Your task to perform on an android device: View the shopping cart on newegg. Search for "logitech g pro" on newegg, select the first entry, and add it to the cart. Image 0: 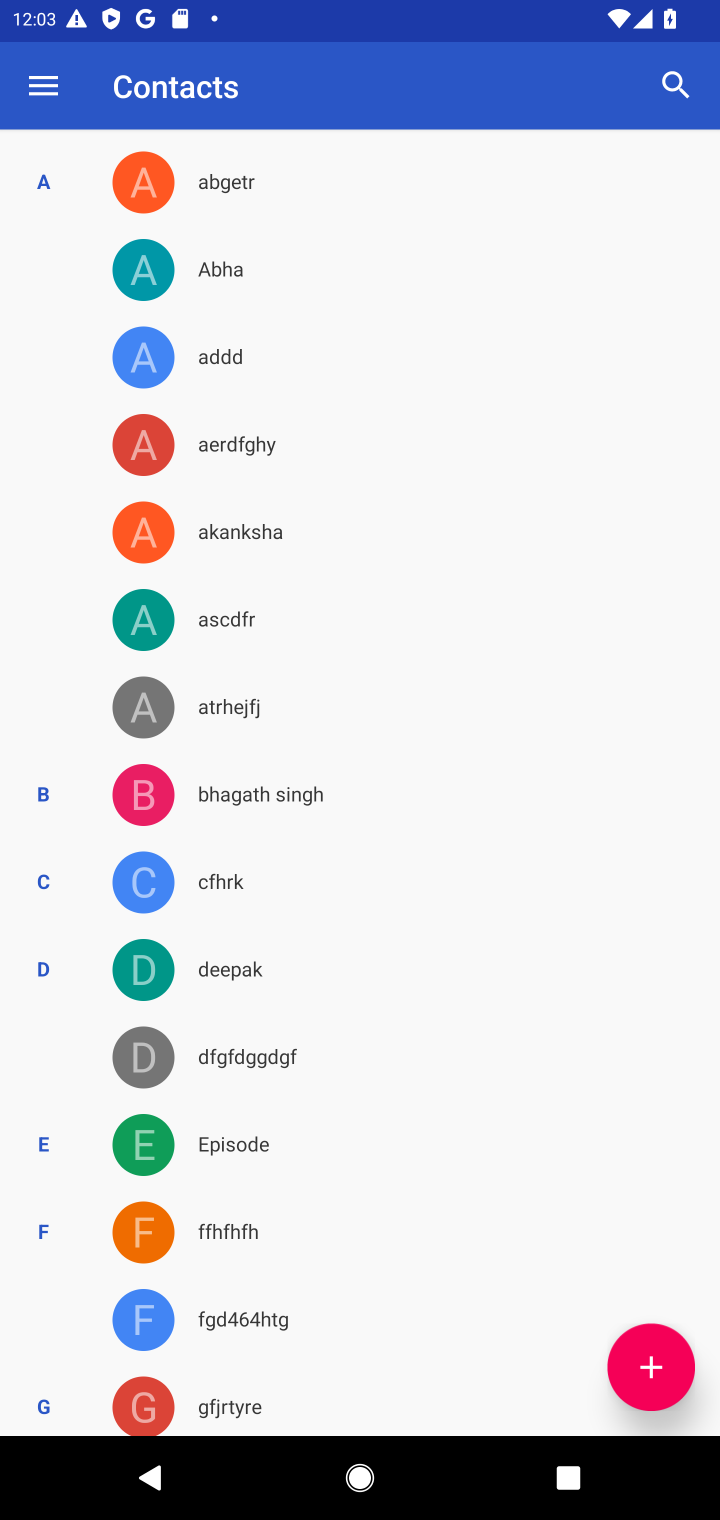
Step 0: press home button
Your task to perform on an android device: View the shopping cart on newegg. Search for "logitech g pro" on newegg, select the first entry, and add it to the cart. Image 1: 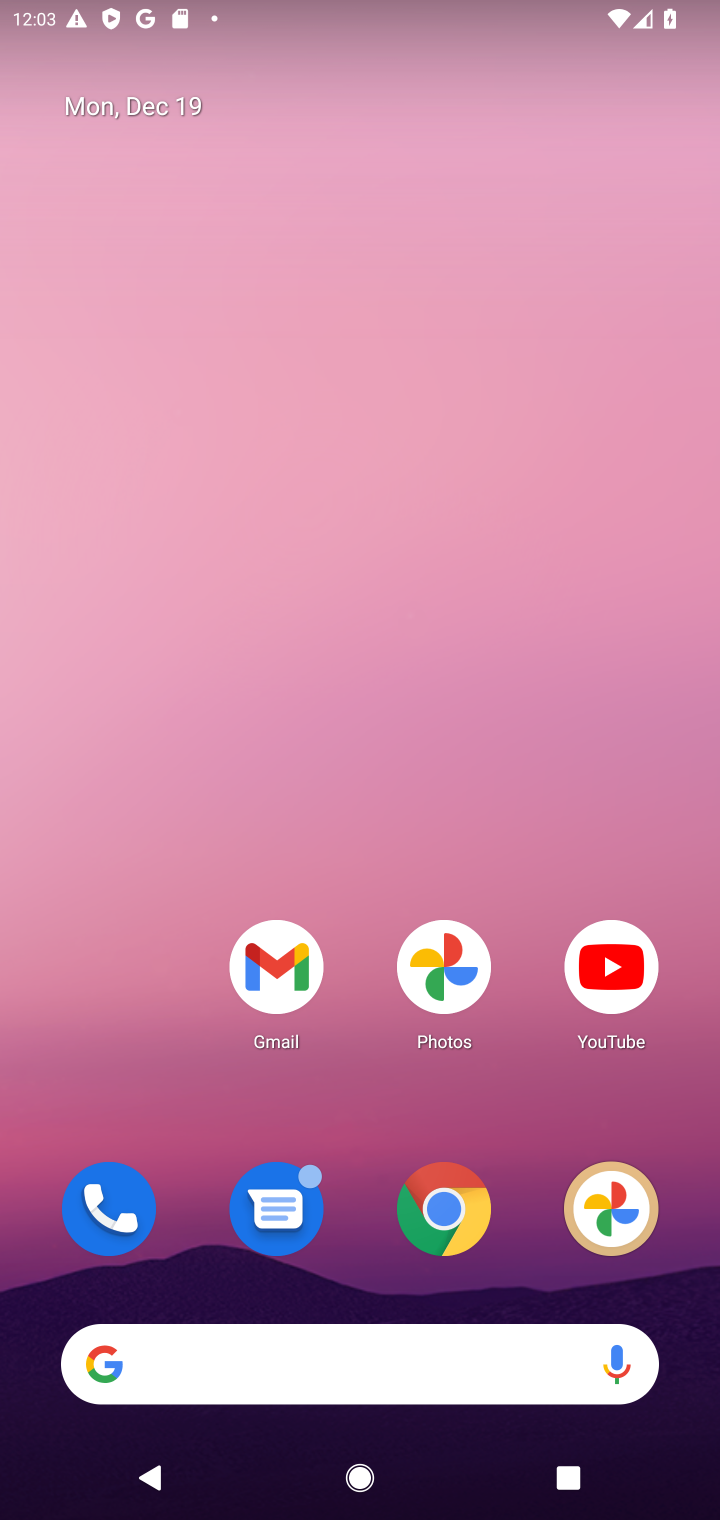
Step 1: click (432, 1206)
Your task to perform on an android device: View the shopping cart on newegg. Search for "logitech g pro" on newegg, select the first entry, and add it to the cart. Image 2: 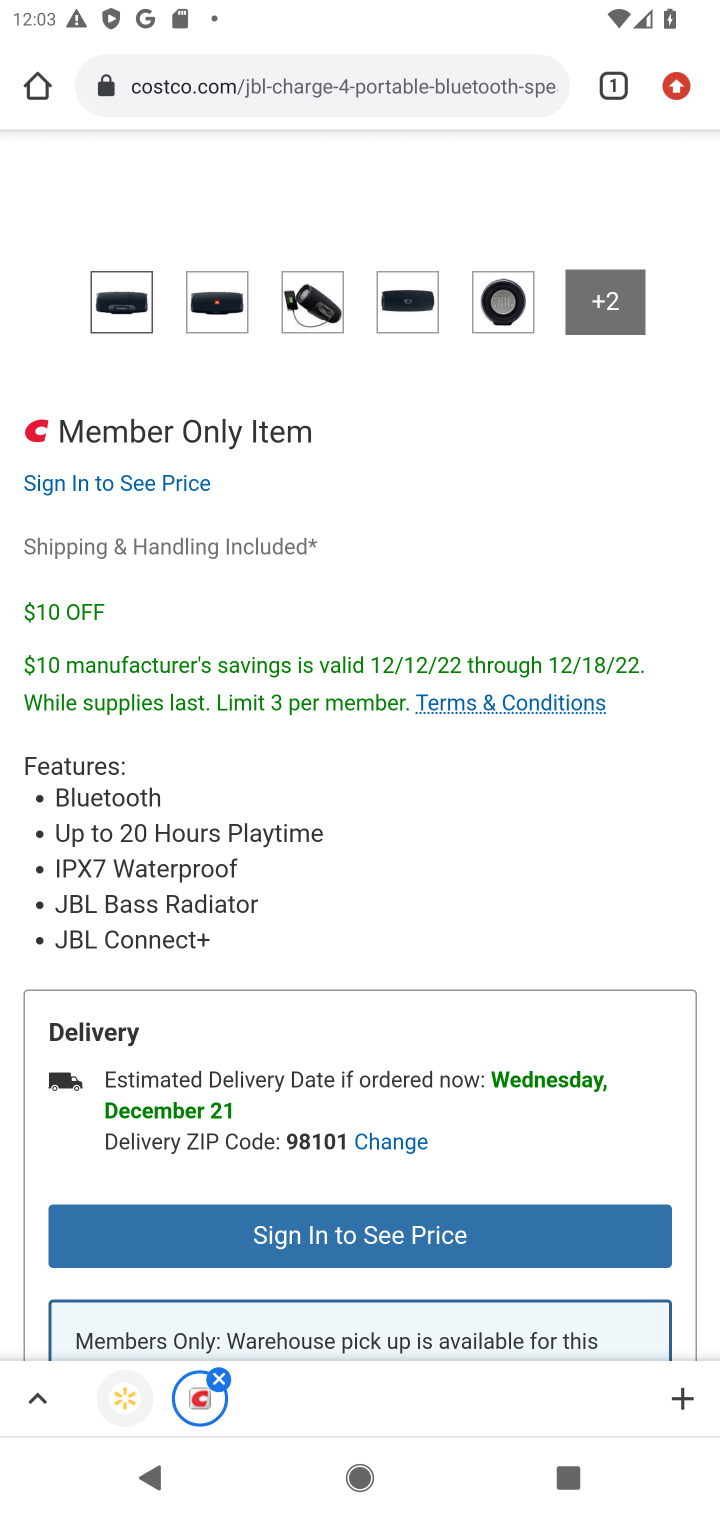
Step 2: click (332, 86)
Your task to perform on an android device: View the shopping cart on newegg. Search for "logitech g pro" on newegg, select the first entry, and add it to the cart. Image 3: 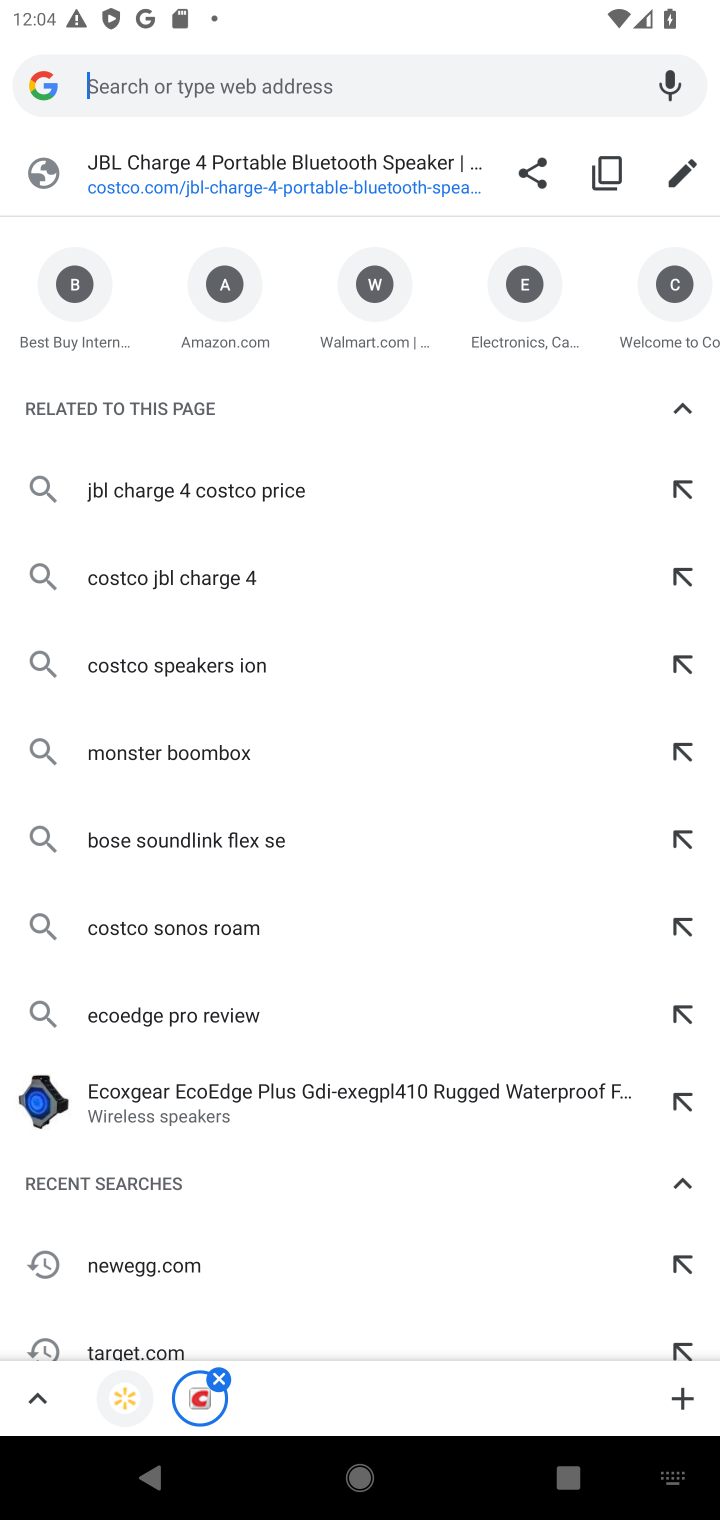
Step 3: type "NEWEGG"
Your task to perform on an android device: View the shopping cart on newegg. Search for "logitech g pro" on newegg, select the first entry, and add it to the cart. Image 4: 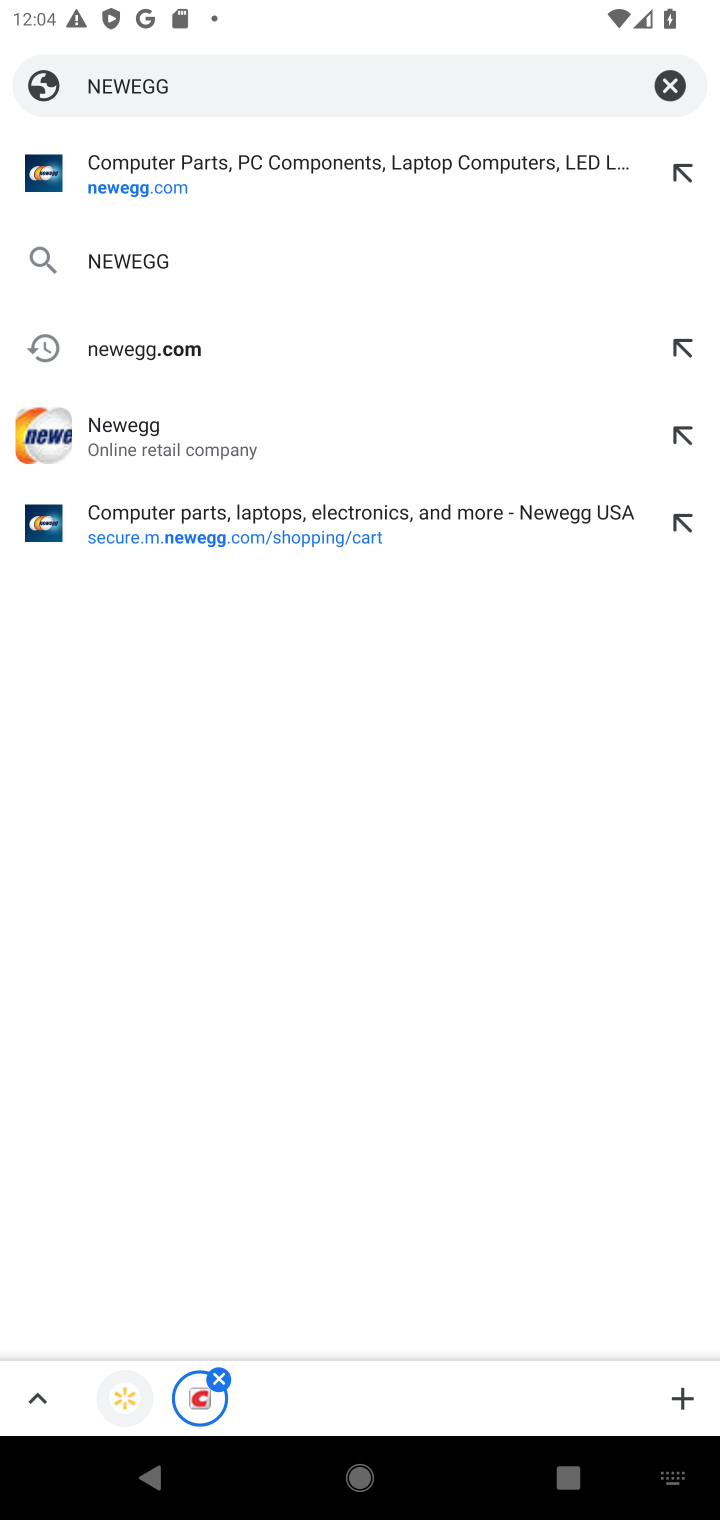
Step 4: click (420, 190)
Your task to perform on an android device: View the shopping cart on newegg. Search for "logitech g pro" on newegg, select the first entry, and add it to the cart. Image 5: 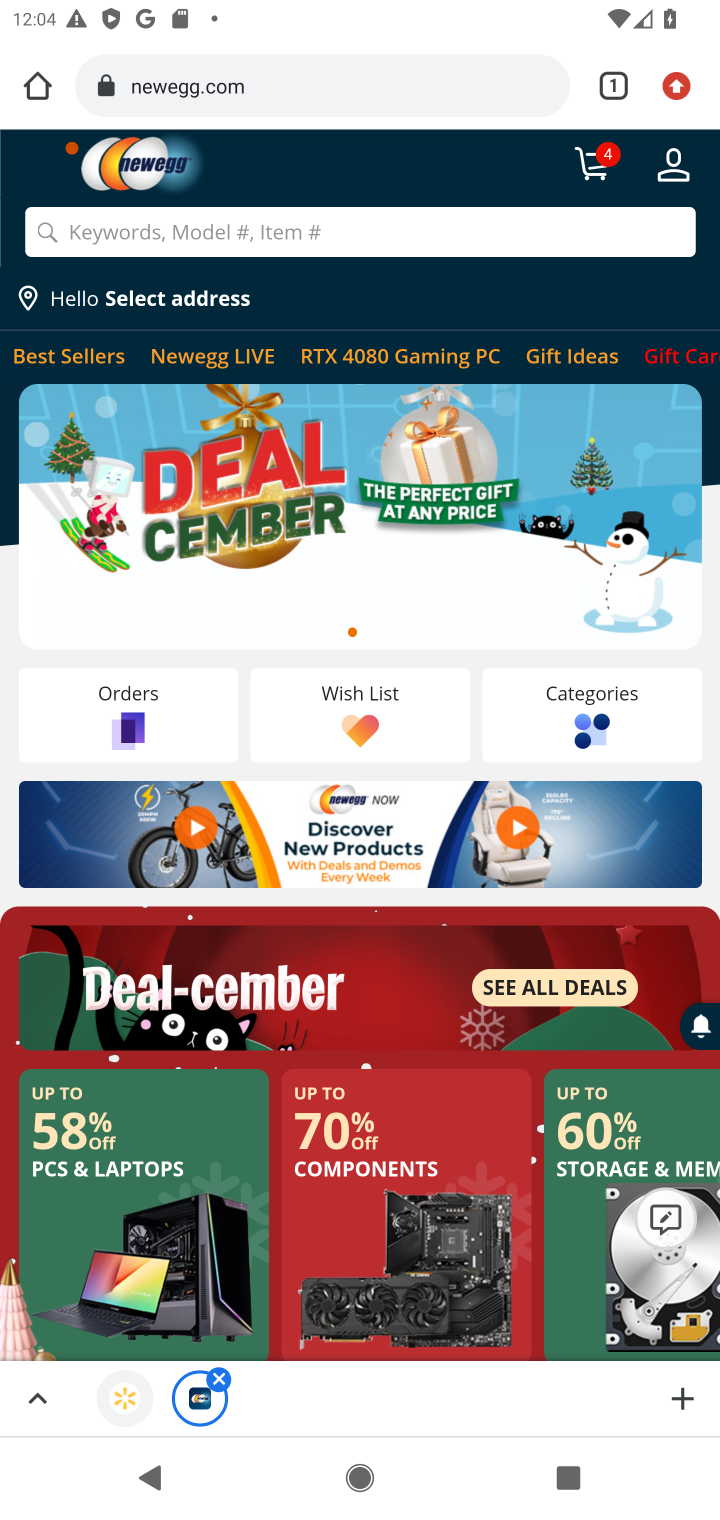
Step 5: click (320, 233)
Your task to perform on an android device: View the shopping cart on newegg. Search for "logitech g pro" on newegg, select the first entry, and add it to the cart. Image 6: 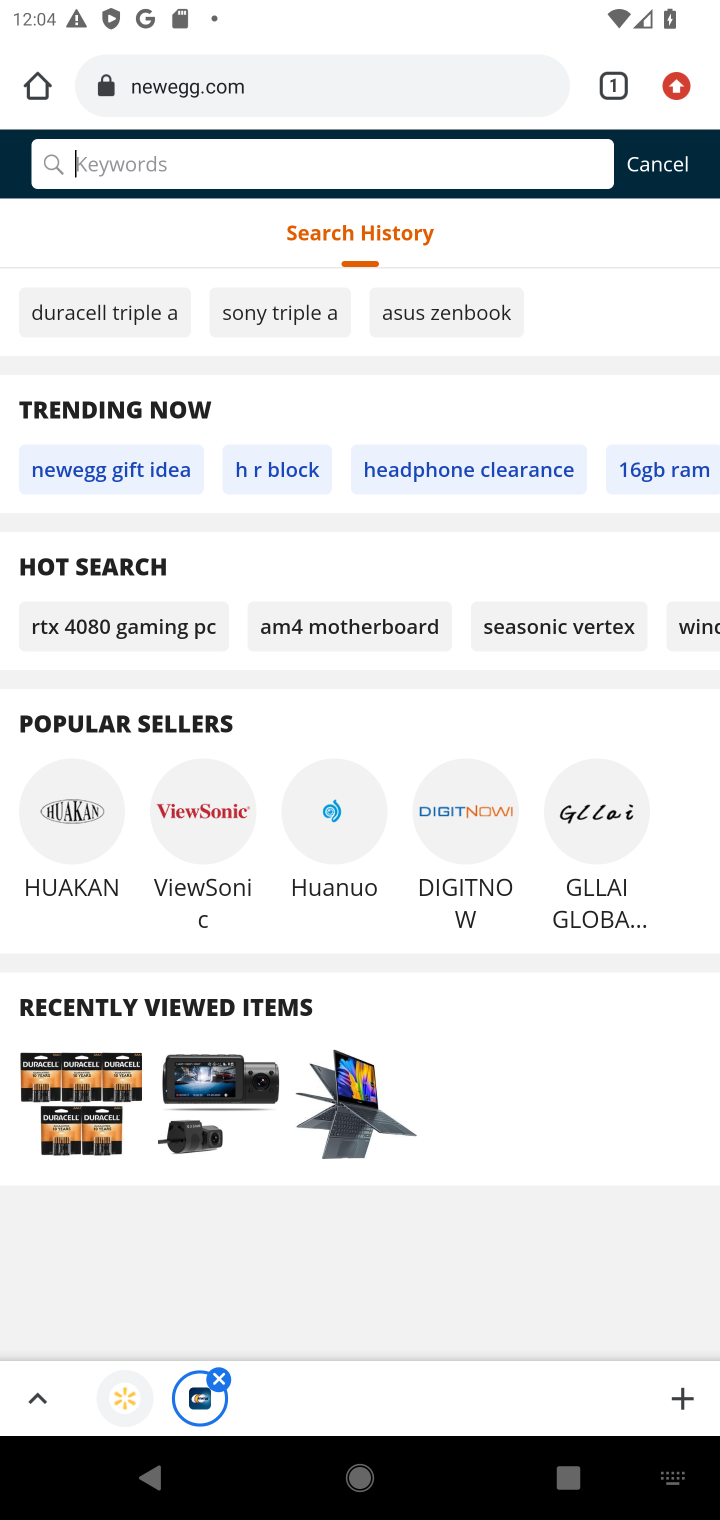
Step 6: type "LOGITECH G PRO"
Your task to perform on an android device: View the shopping cart on newegg. Search for "logitech g pro" on newegg, select the first entry, and add it to the cart. Image 7: 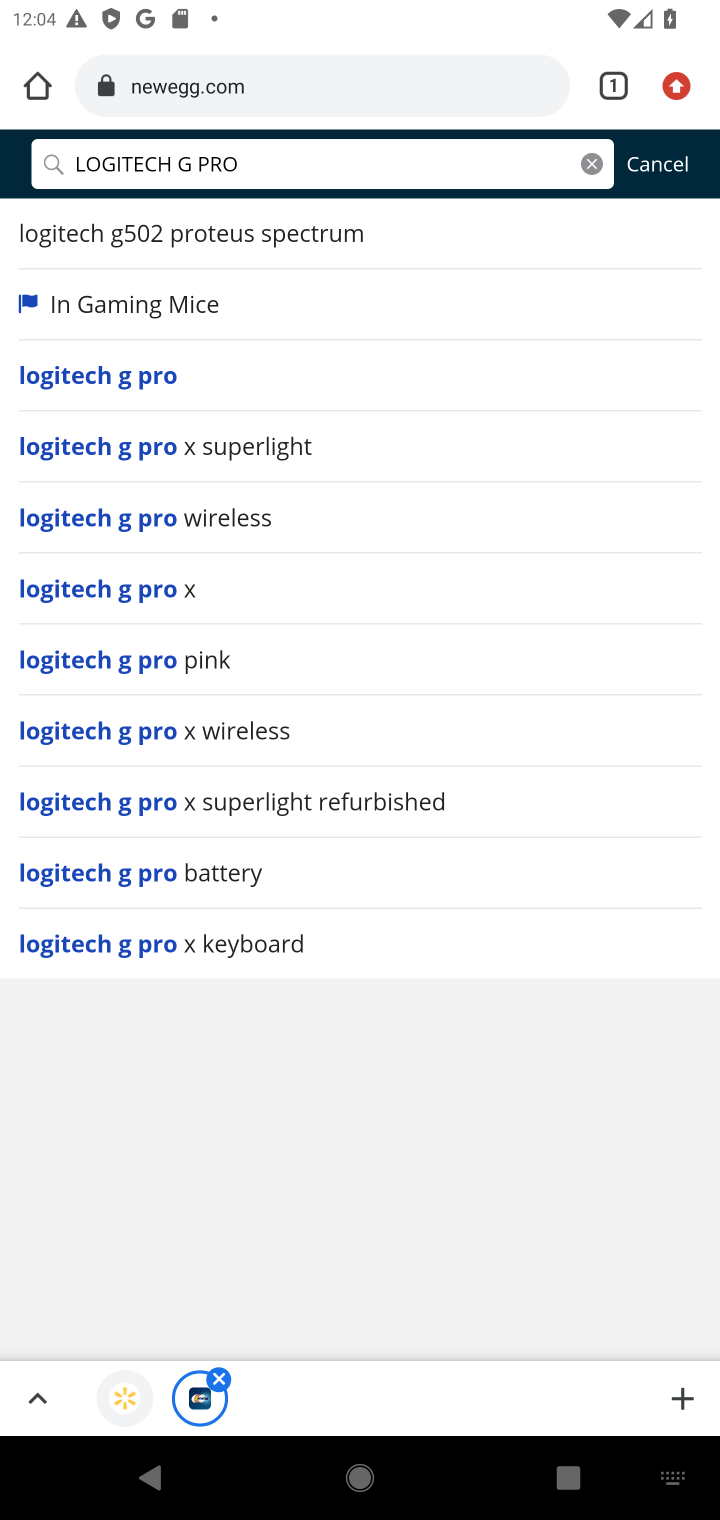
Step 7: click (172, 230)
Your task to perform on an android device: View the shopping cart on newegg. Search for "logitech g pro" on newegg, select the first entry, and add it to the cart. Image 8: 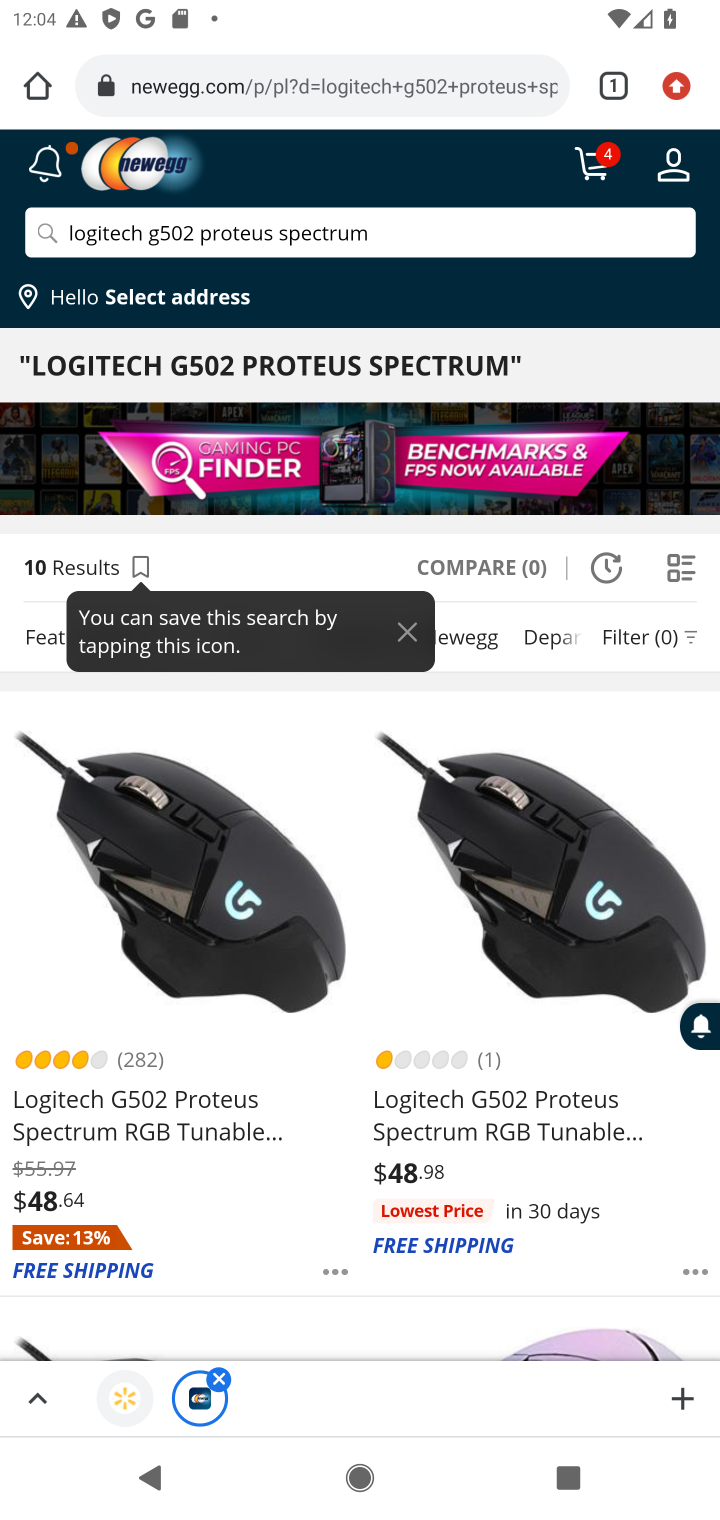
Step 8: click (115, 869)
Your task to perform on an android device: View the shopping cart on newegg. Search for "logitech g pro" on newegg, select the first entry, and add it to the cart. Image 9: 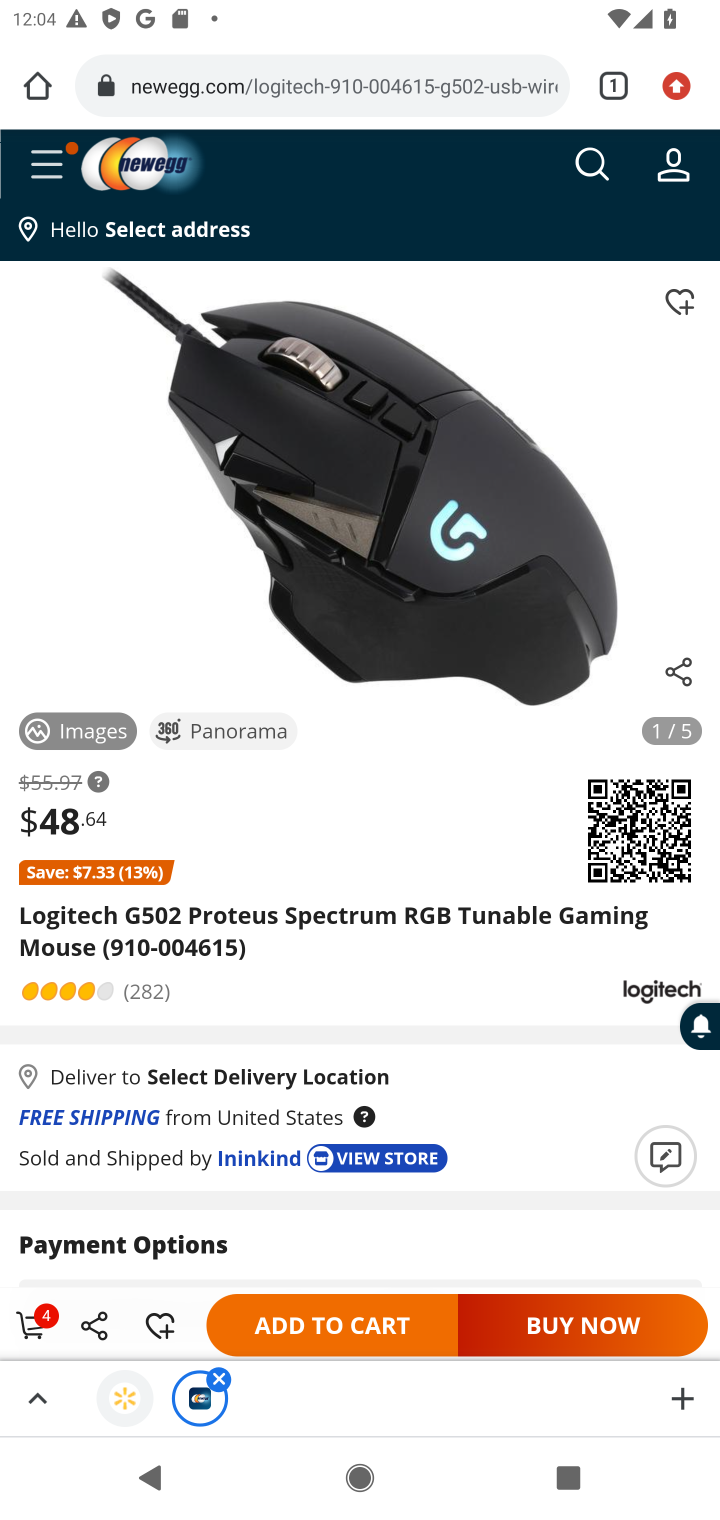
Step 9: click (289, 1332)
Your task to perform on an android device: View the shopping cart on newegg. Search for "logitech g pro" on newegg, select the first entry, and add it to the cart. Image 10: 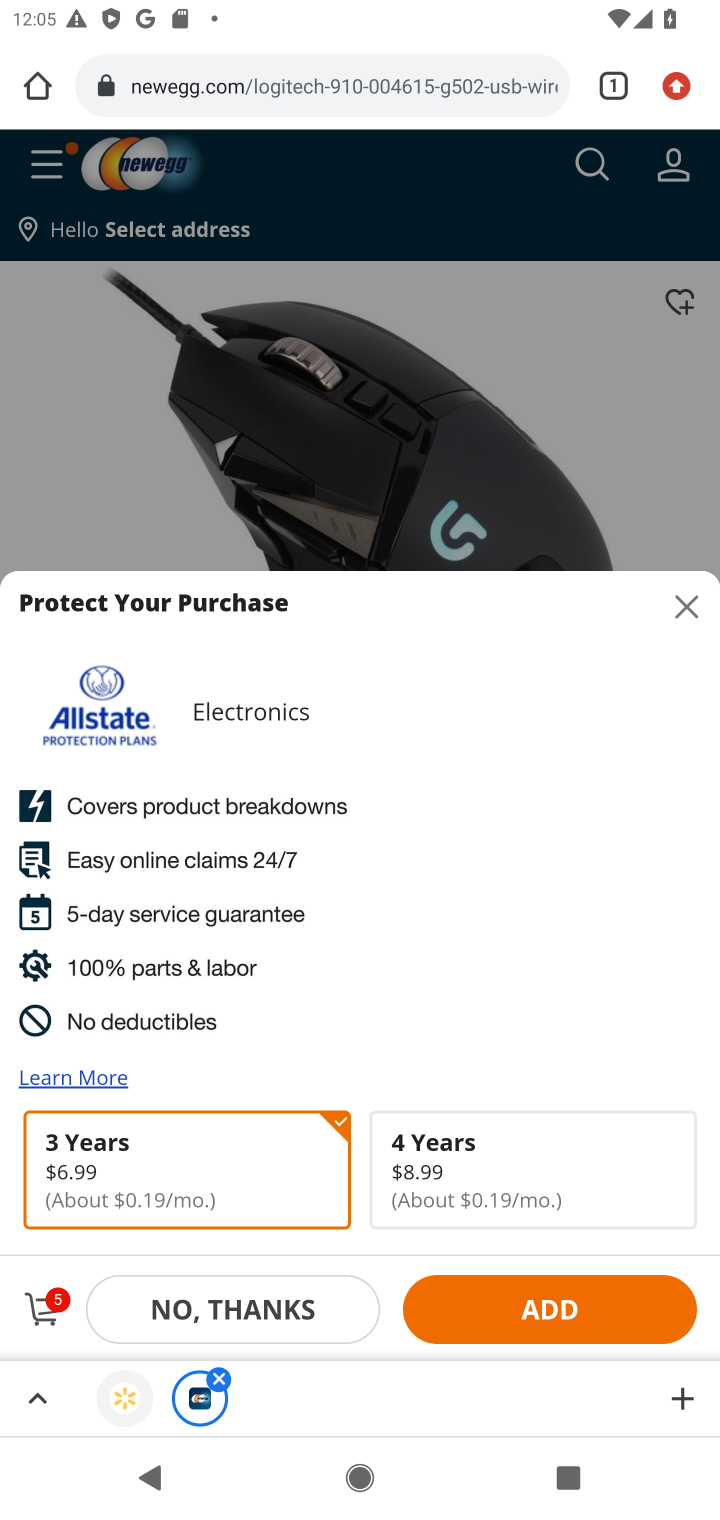
Step 10: click (173, 1302)
Your task to perform on an android device: View the shopping cart on newegg. Search for "logitech g pro" on newegg, select the first entry, and add it to the cart. Image 11: 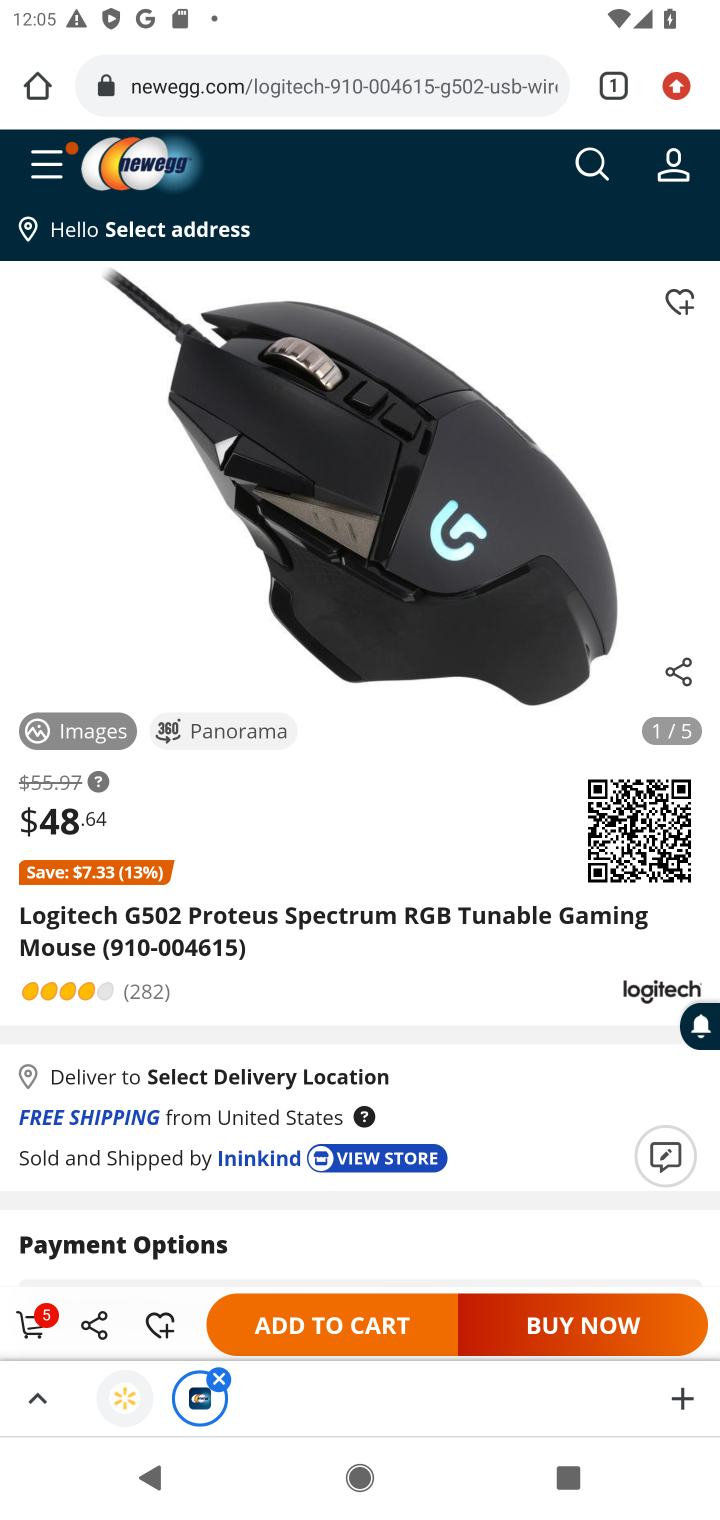
Step 11: task complete